Your task to perform on an android device: Open Android settings Image 0: 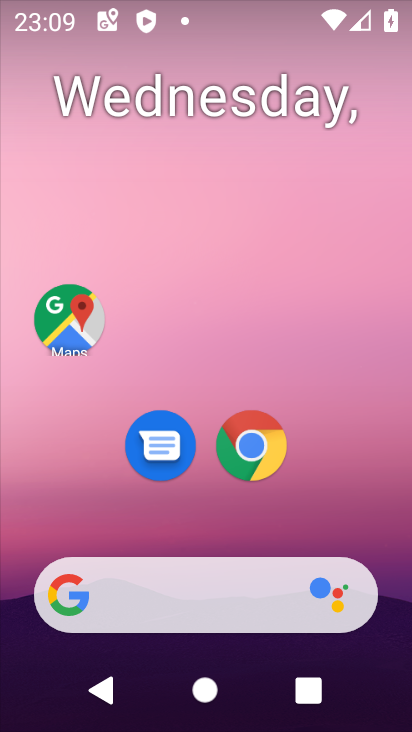
Step 0: drag from (311, 449) to (297, 219)
Your task to perform on an android device: Open Android settings Image 1: 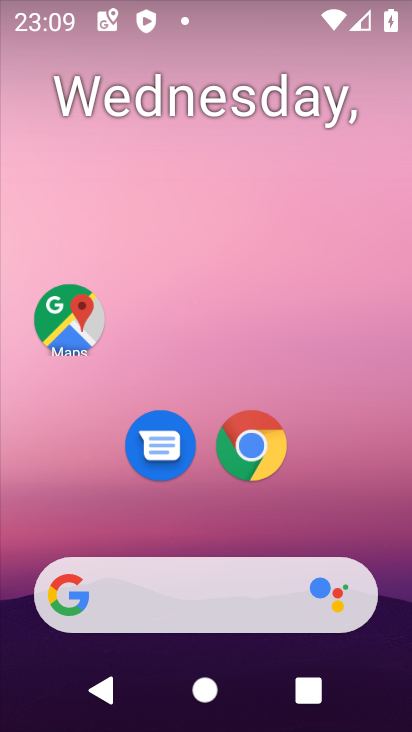
Step 1: drag from (341, 467) to (325, 188)
Your task to perform on an android device: Open Android settings Image 2: 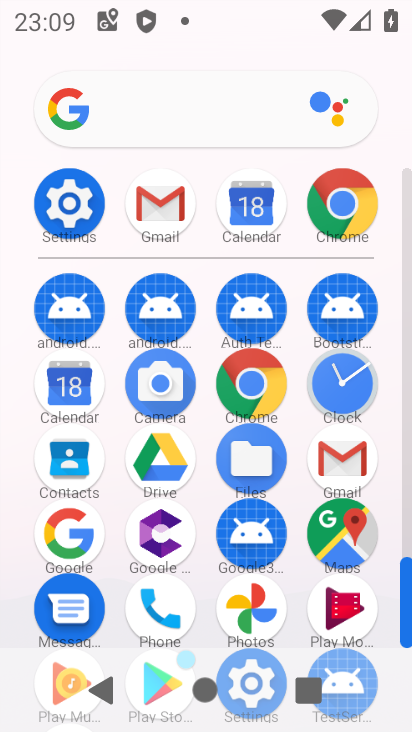
Step 2: click (70, 189)
Your task to perform on an android device: Open Android settings Image 3: 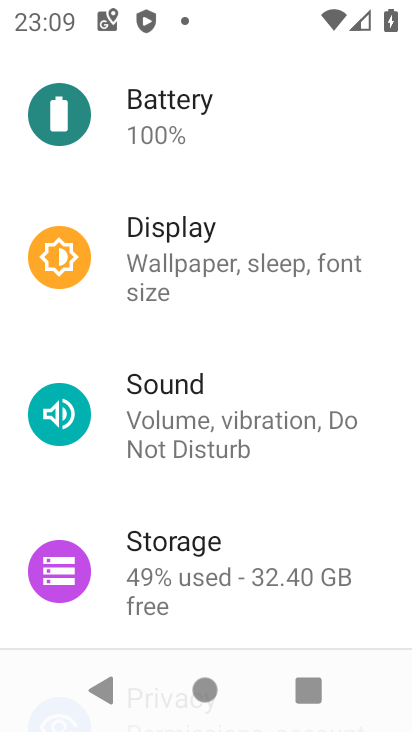
Step 3: task complete